Your task to perform on an android device: Open Google Maps Image 0: 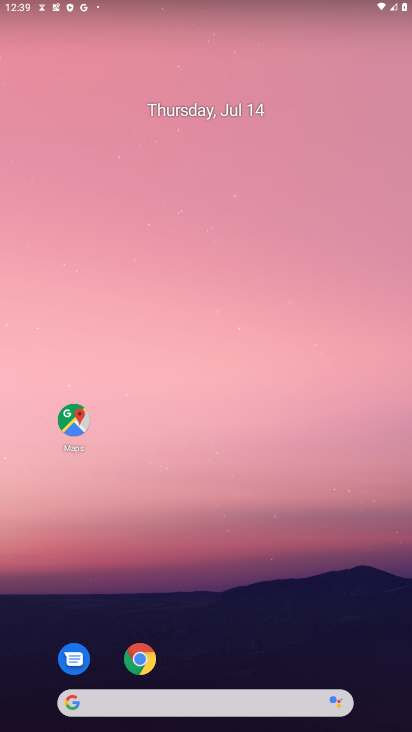
Step 0: click (108, 428)
Your task to perform on an android device: Open Google Maps Image 1: 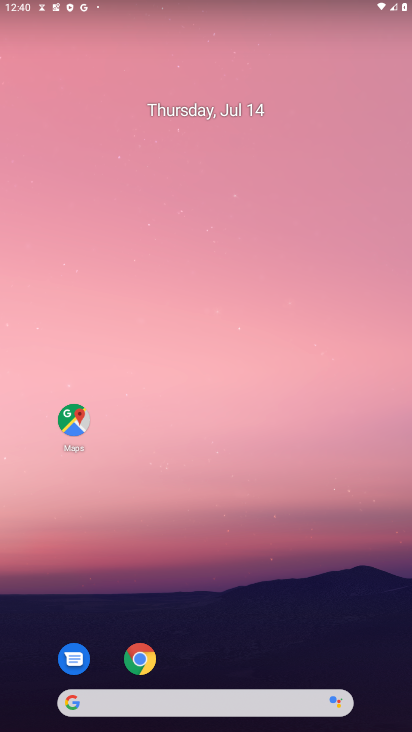
Step 1: click (64, 419)
Your task to perform on an android device: Open Google Maps Image 2: 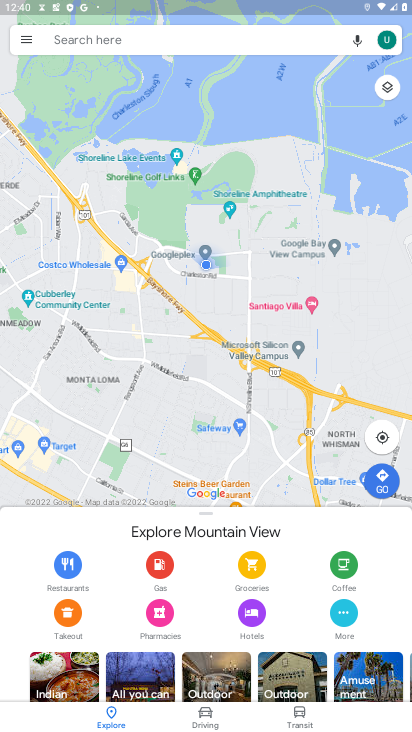
Step 2: click (91, 35)
Your task to perform on an android device: Open Google Maps Image 3: 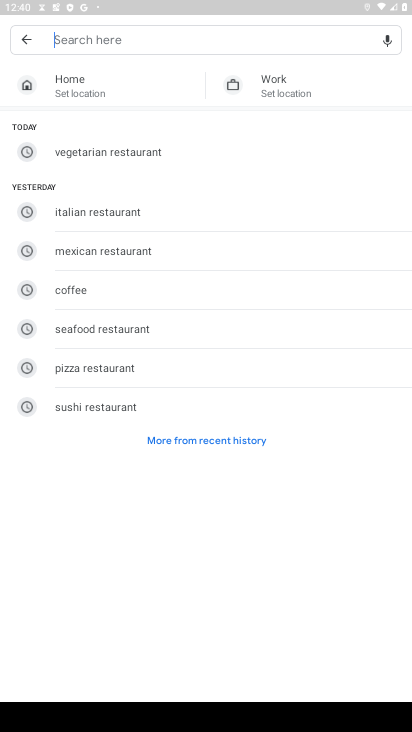
Step 3: click (25, 29)
Your task to perform on an android device: Open Google Maps Image 4: 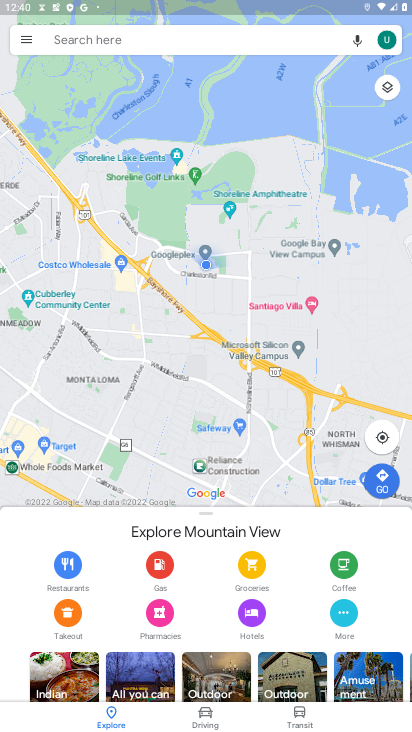
Step 4: click (99, 35)
Your task to perform on an android device: Open Google Maps Image 5: 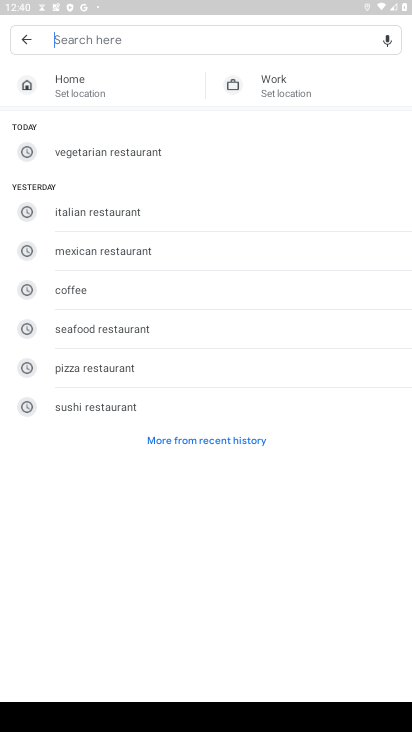
Step 5: click (15, 37)
Your task to perform on an android device: Open Google Maps Image 6: 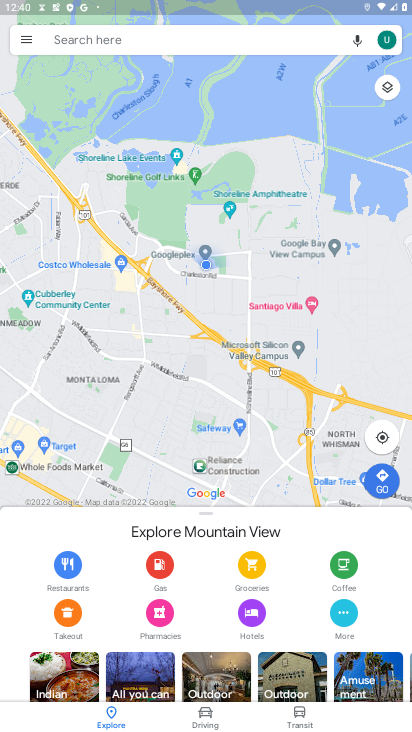
Step 6: task complete